Your task to perform on an android device: Open my contact list Image 0: 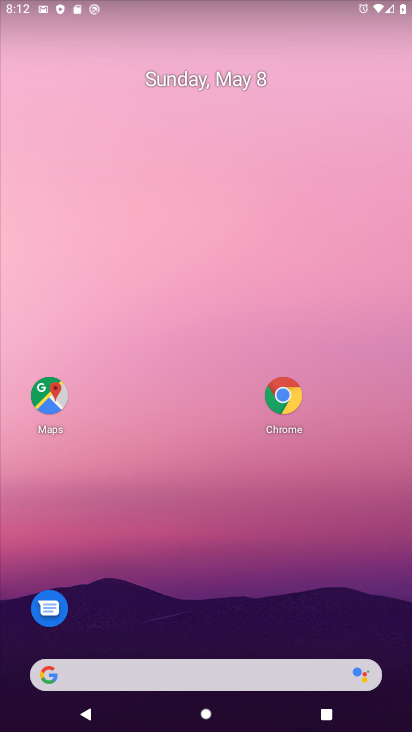
Step 0: press home button
Your task to perform on an android device: Open my contact list Image 1: 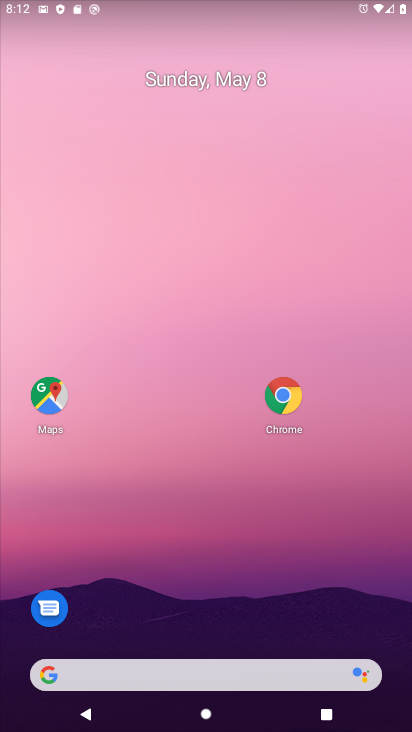
Step 1: drag from (193, 682) to (320, 196)
Your task to perform on an android device: Open my contact list Image 2: 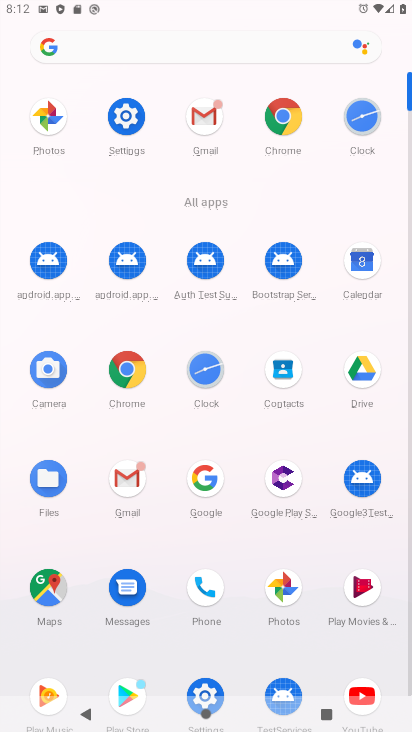
Step 2: click (283, 378)
Your task to perform on an android device: Open my contact list Image 3: 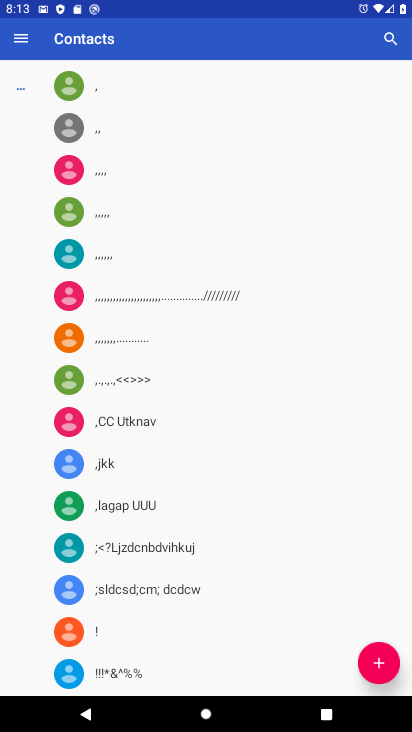
Step 3: task complete